Your task to perform on an android device: snooze an email in the gmail app Image 0: 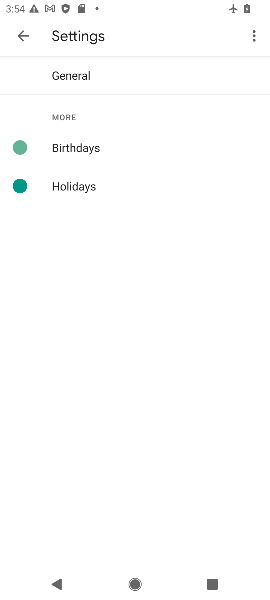
Step 0: press home button
Your task to perform on an android device: snooze an email in the gmail app Image 1: 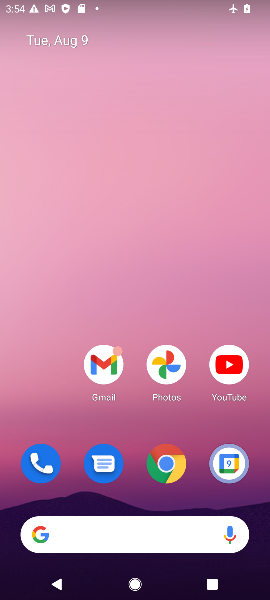
Step 1: click (104, 359)
Your task to perform on an android device: snooze an email in the gmail app Image 2: 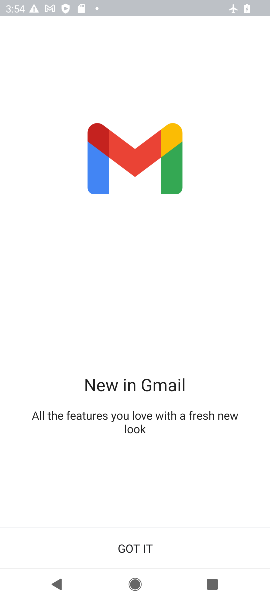
Step 2: click (112, 545)
Your task to perform on an android device: snooze an email in the gmail app Image 3: 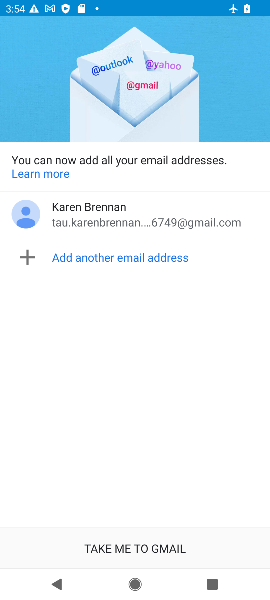
Step 3: click (122, 548)
Your task to perform on an android device: snooze an email in the gmail app Image 4: 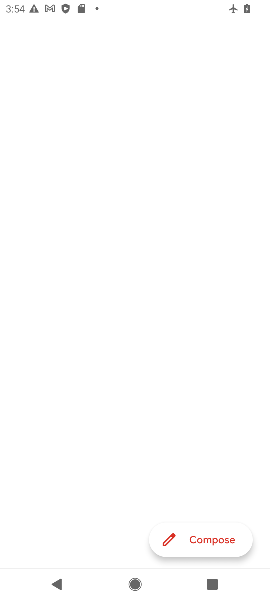
Step 4: click (123, 548)
Your task to perform on an android device: snooze an email in the gmail app Image 5: 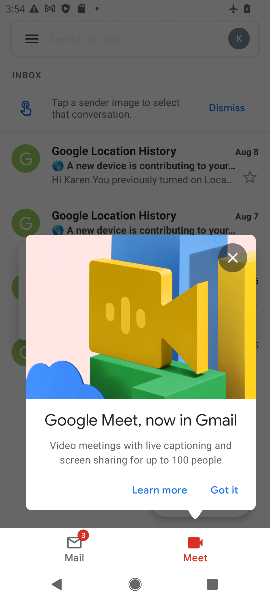
Step 5: click (225, 259)
Your task to perform on an android device: snooze an email in the gmail app Image 6: 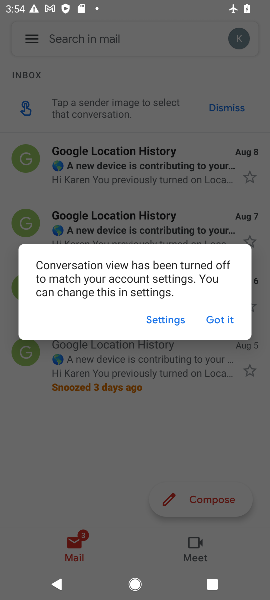
Step 6: click (218, 318)
Your task to perform on an android device: snooze an email in the gmail app Image 7: 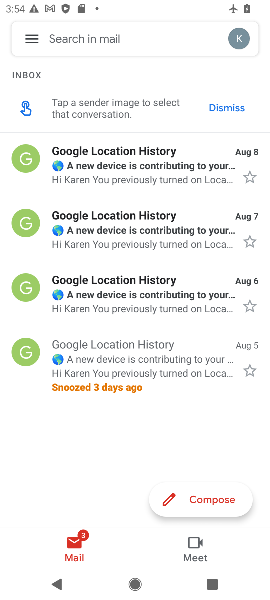
Step 7: click (106, 164)
Your task to perform on an android device: snooze an email in the gmail app Image 8: 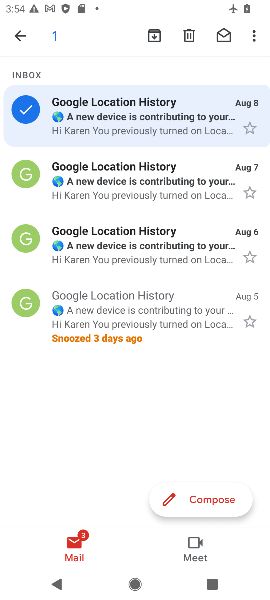
Step 8: click (251, 32)
Your task to perform on an android device: snooze an email in the gmail app Image 9: 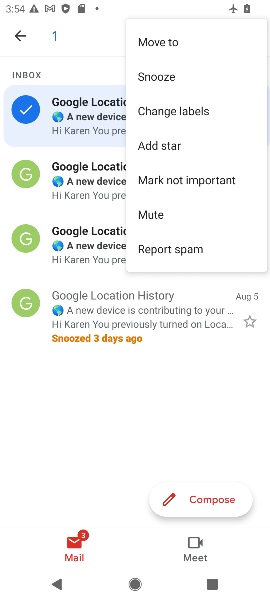
Step 9: click (166, 81)
Your task to perform on an android device: snooze an email in the gmail app Image 10: 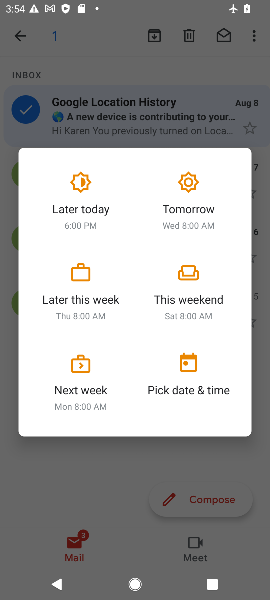
Step 10: click (74, 195)
Your task to perform on an android device: snooze an email in the gmail app Image 11: 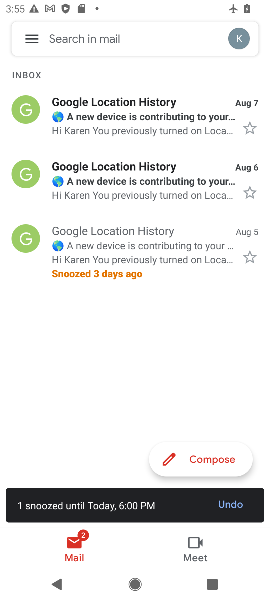
Step 11: task complete